Your task to perform on an android device: toggle sleep mode Image 0: 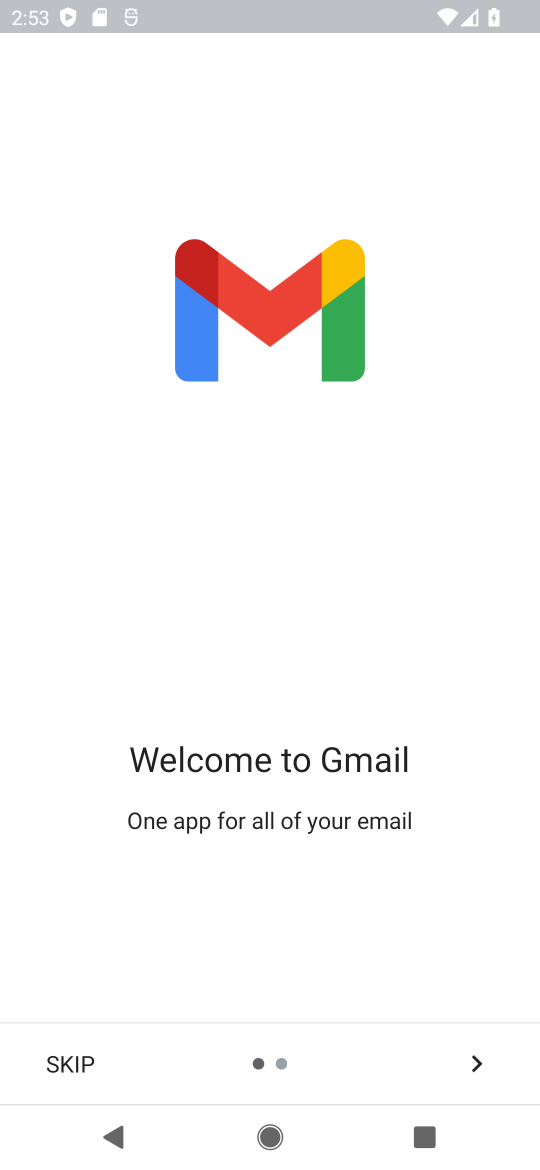
Step 0: press home button
Your task to perform on an android device: toggle sleep mode Image 1: 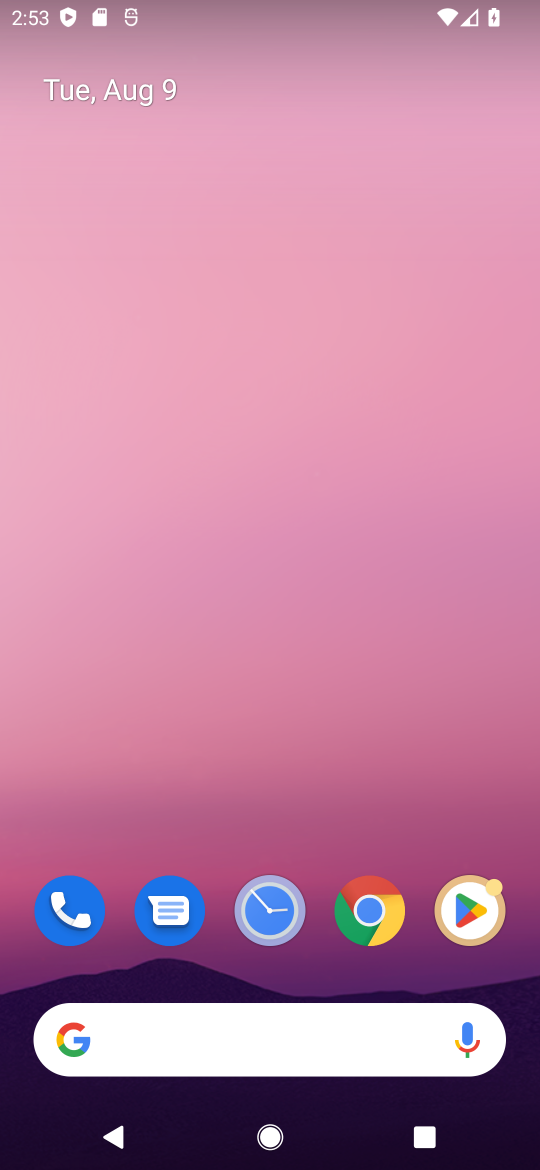
Step 1: drag from (315, 824) to (272, 56)
Your task to perform on an android device: toggle sleep mode Image 2: 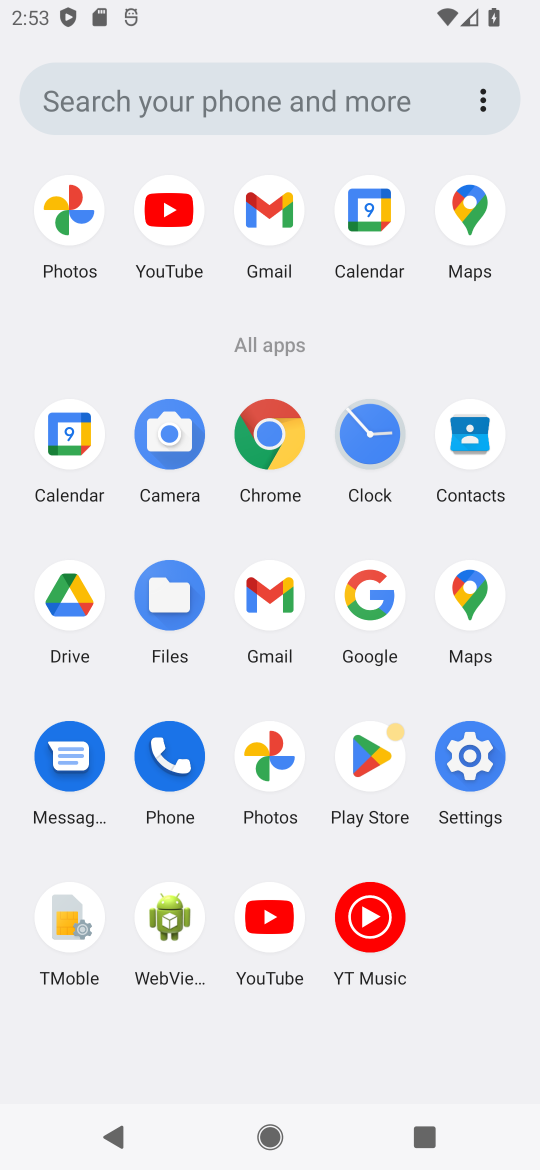
Step 2: click (456, 778)
Your task to perform on an android device: toggle sleep mode Image 3: 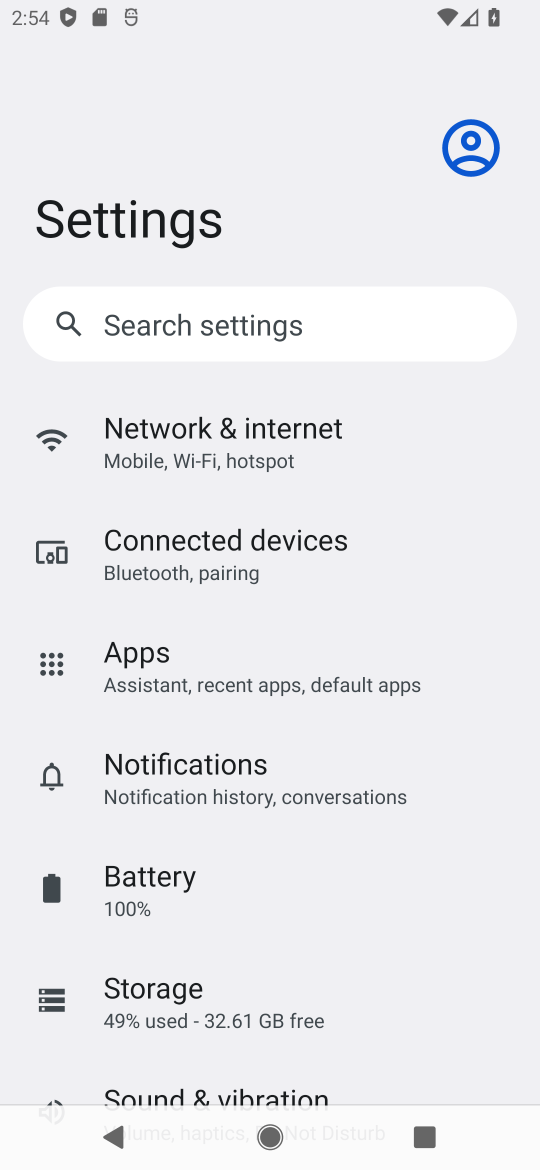
Step 3: drag from (294, 1014) to (324, 560)
Your task to perform on an android device: toggle sleep mode Image 4: 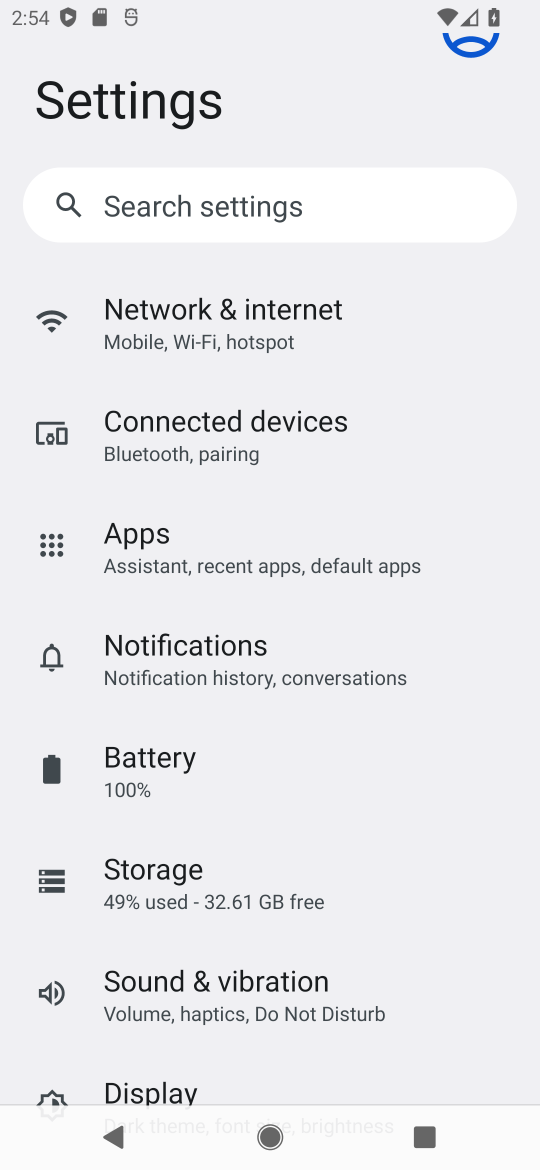
Step 4: click (198, 1072)
Your task to perform on an android device: toggle sleep mode Image 5: 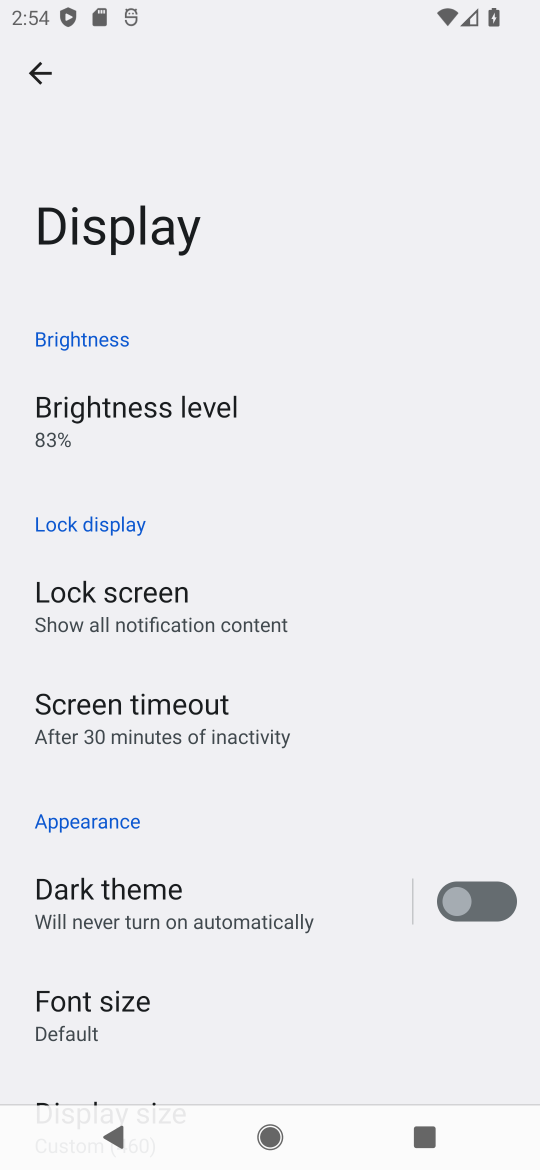
Step 5: task complete